Your task to perform on an android device: toggle pop-ups in chrome Image 0: 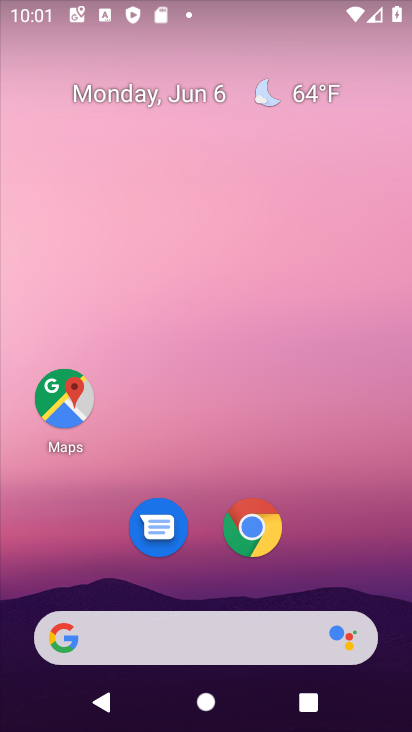
Step 0: drag from (227, 644) to (293, 78)
Your task to perform on an android device: toggle pop-ups in chrome Image 1: 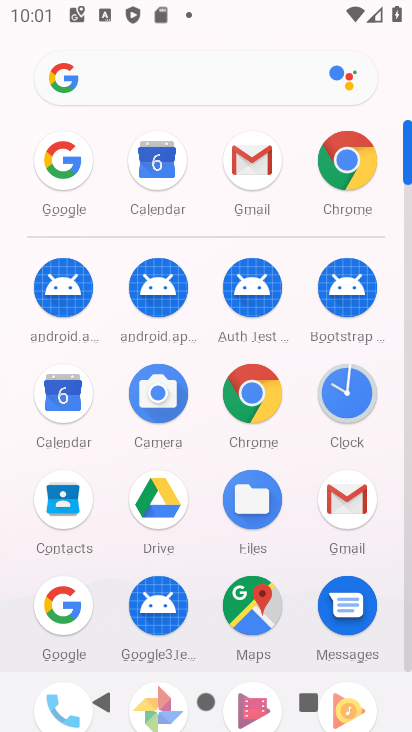
Step 1: click (358, 178)
Your task to perform on an android device: toggle pop-ups in chrome Image 2: 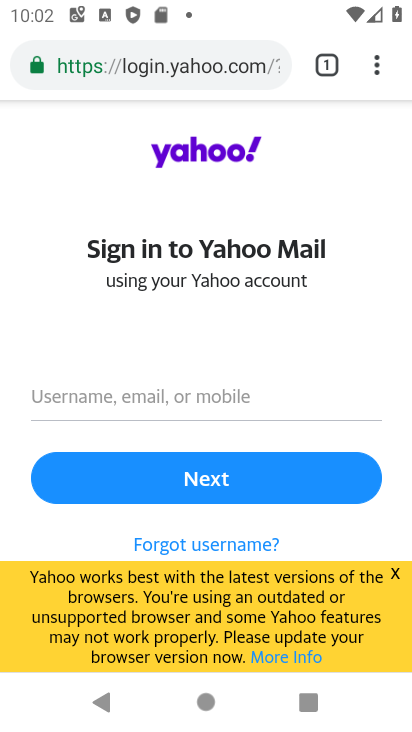
Step 2: click (371, 61)
Your task to perform on an android device: toggle pop-ups in chrome Image 3: 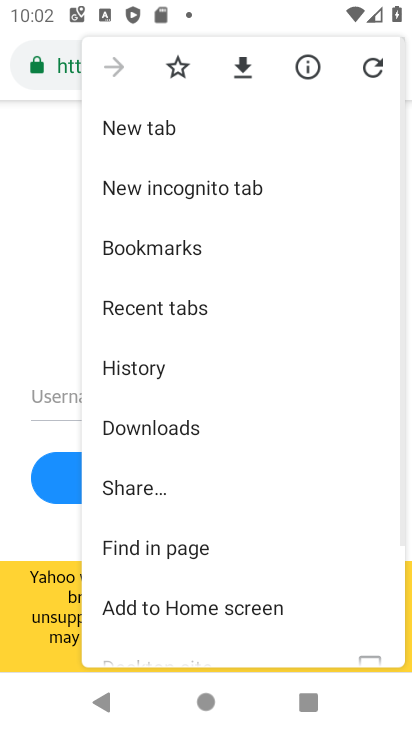
Step 3: drag from (216, 642) to (243, 191)
Your task to perform on an android device: toggle pop-ups in chrome Image 4: 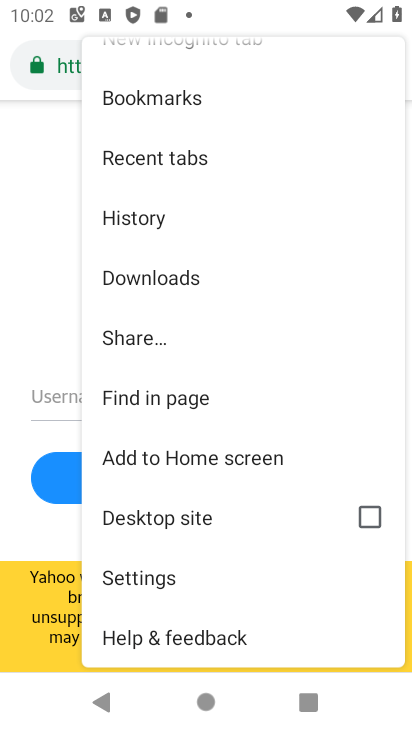
Step 4: click (167, 584)
Your task to perform on an android device: toggle pop-ups in chrome Image 5: 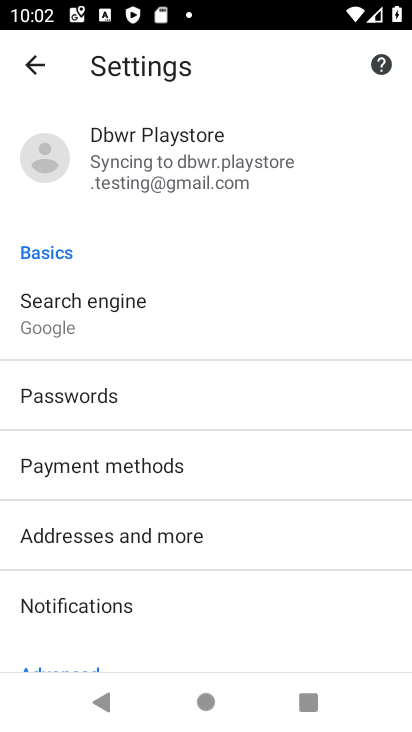
Step 5: drag from (175, 558) to (214, 317)
Your task to perform on an android device: toggle pop-ups in chrome Image 6: 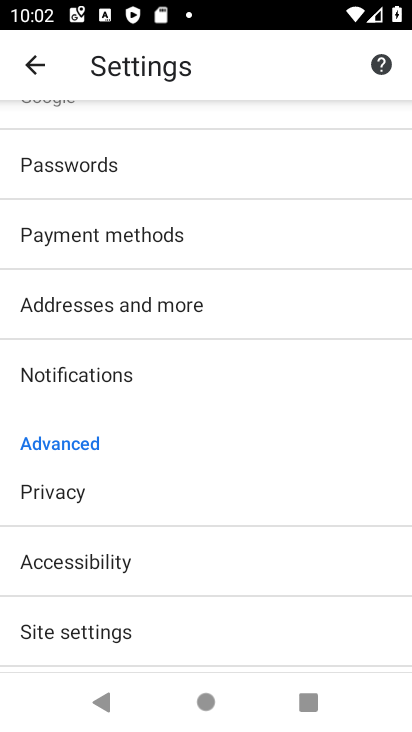
Step 6: drag from (198, 596) to (255, 365)
Your task to perform on an android device: toggle pop-ups in chrome Image 7: 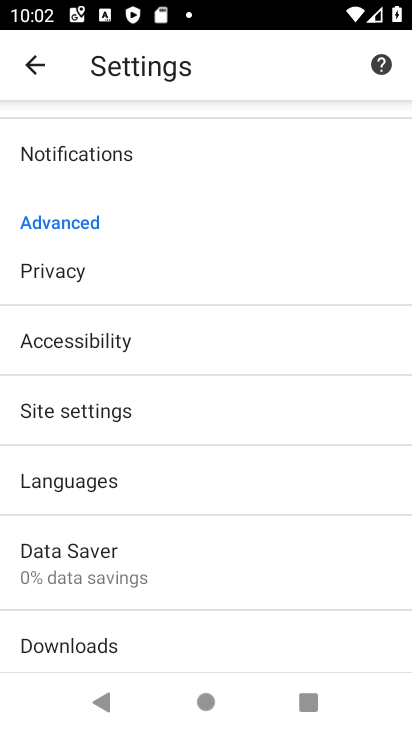
Step 7: click (163, 414)
Your task to perform on an android device: toggle pop-ups in chrome Image 8: 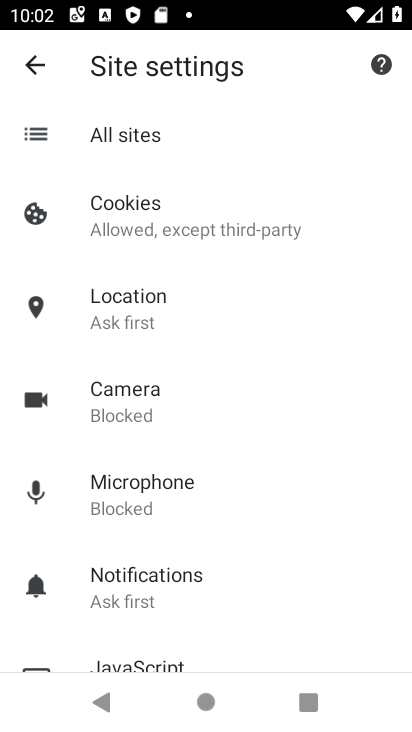
Step 8: drag from (194, 628) to (209, 213)
Your task to perform on an android device: toggle pop-ups in chrome Image 9: 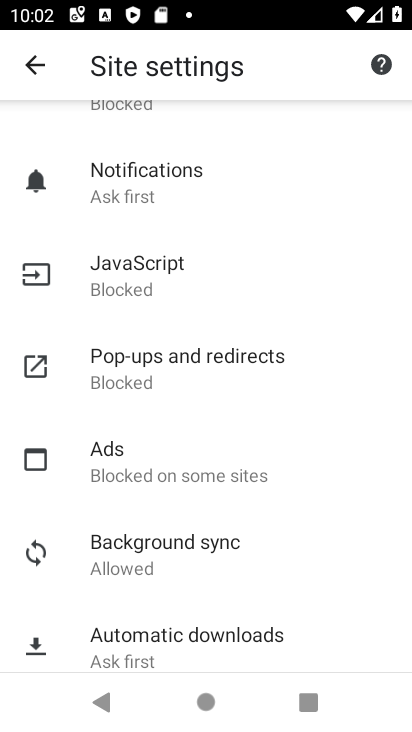
Step 9: click (213, 384)
Your task to perform on an android device: toggle pop-ups in chrome Image 10: 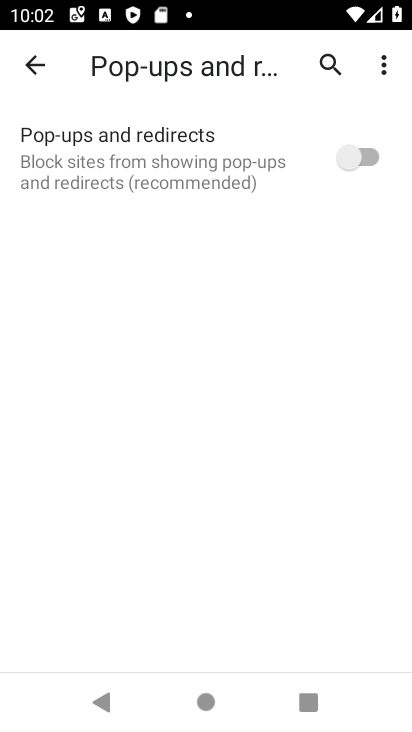
Step 10: click (345, 162)
Your task to perform on an android device: toggle pop-ups in chrome Image 11: 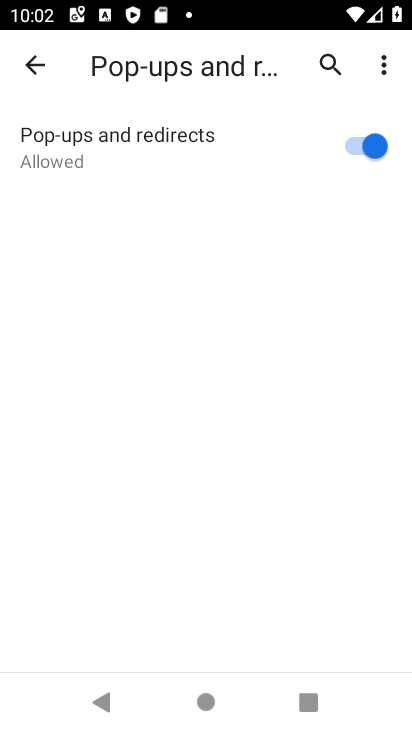
Step 11: task complete